Your task to perform on an android device: Open the Play Movies app and select the watchlist tab. Image 0: 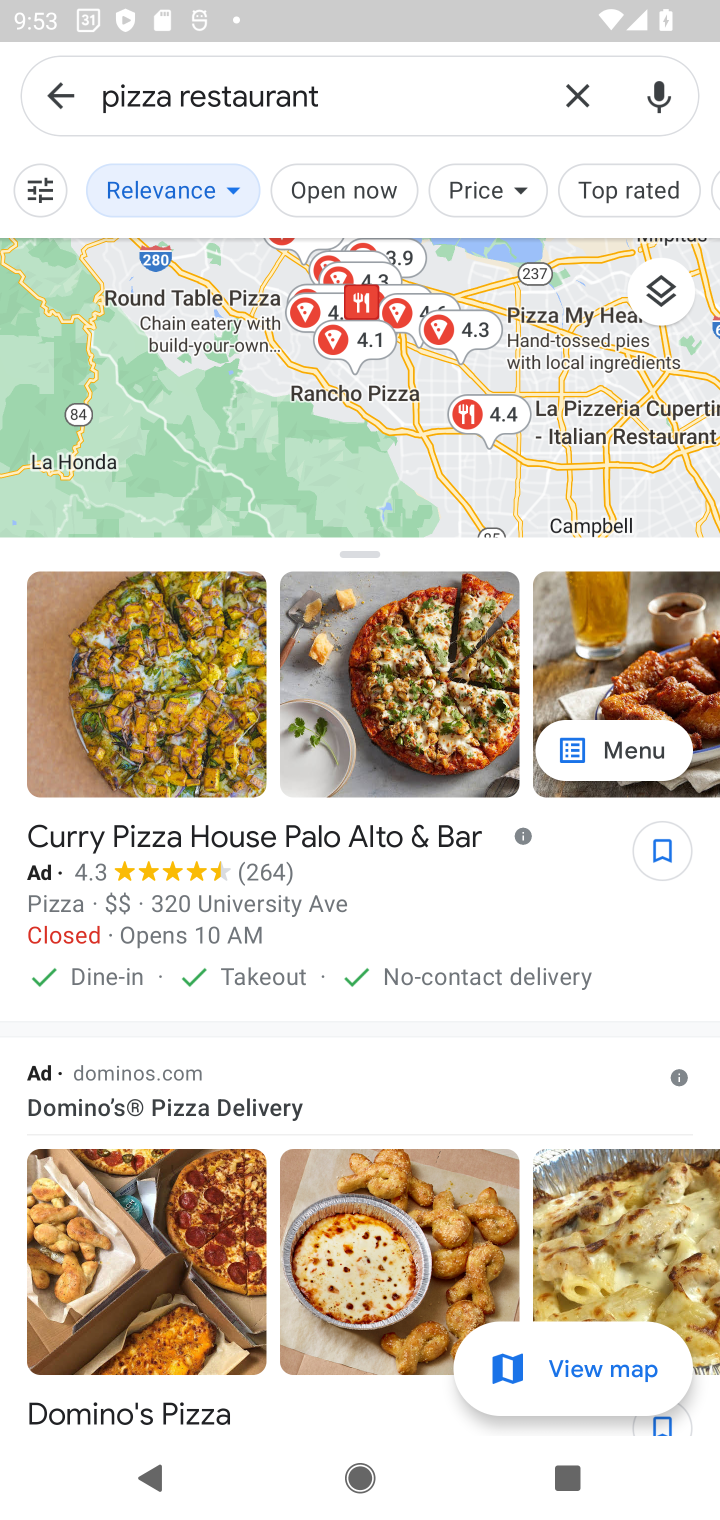
Step 0: press home button
Your task to perform on an android device: Open the Play Movies app and select the watchlist tab. Image 1: 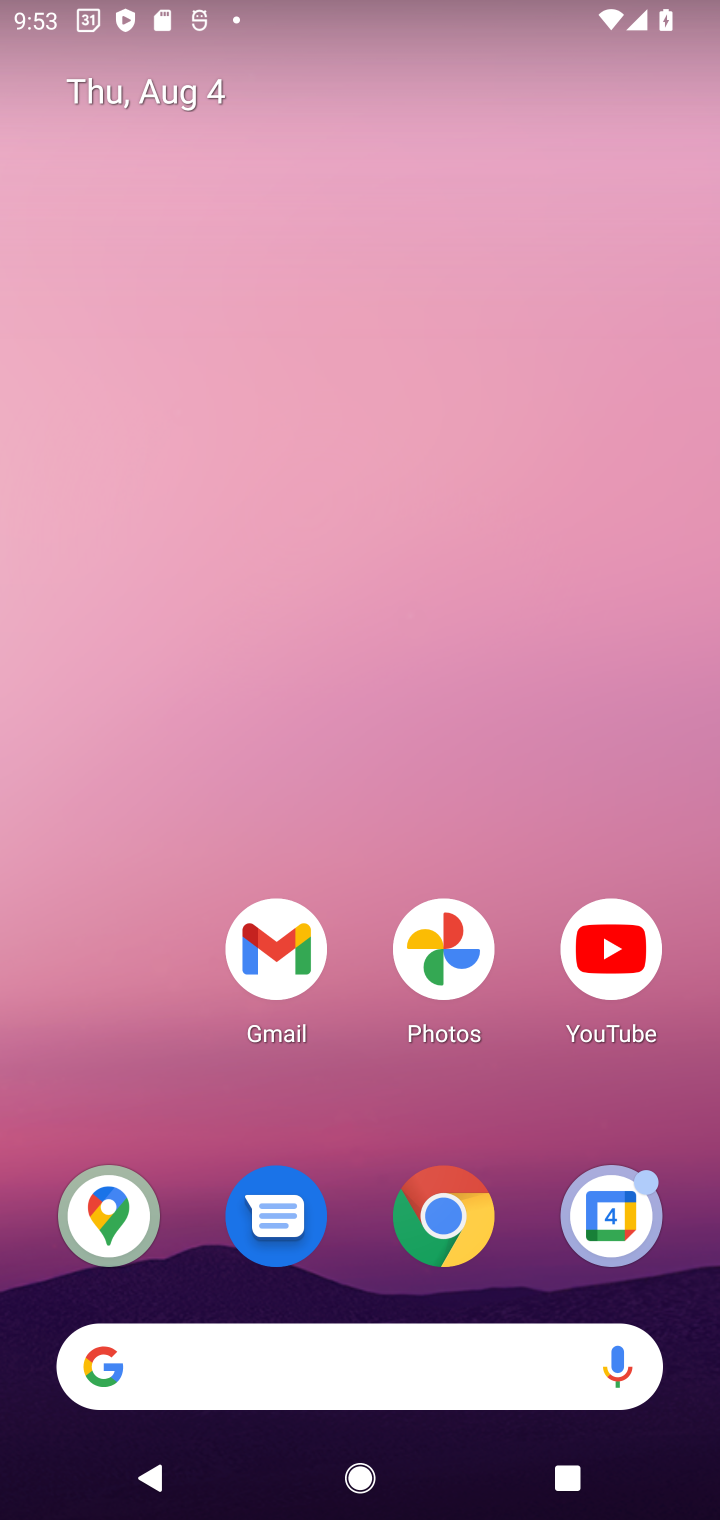
Step 1: drag from (270, 1362) to (366, 155)
Your task to perform on an android device: Open the Play Movies app and select the watchlist tab. Image 2: 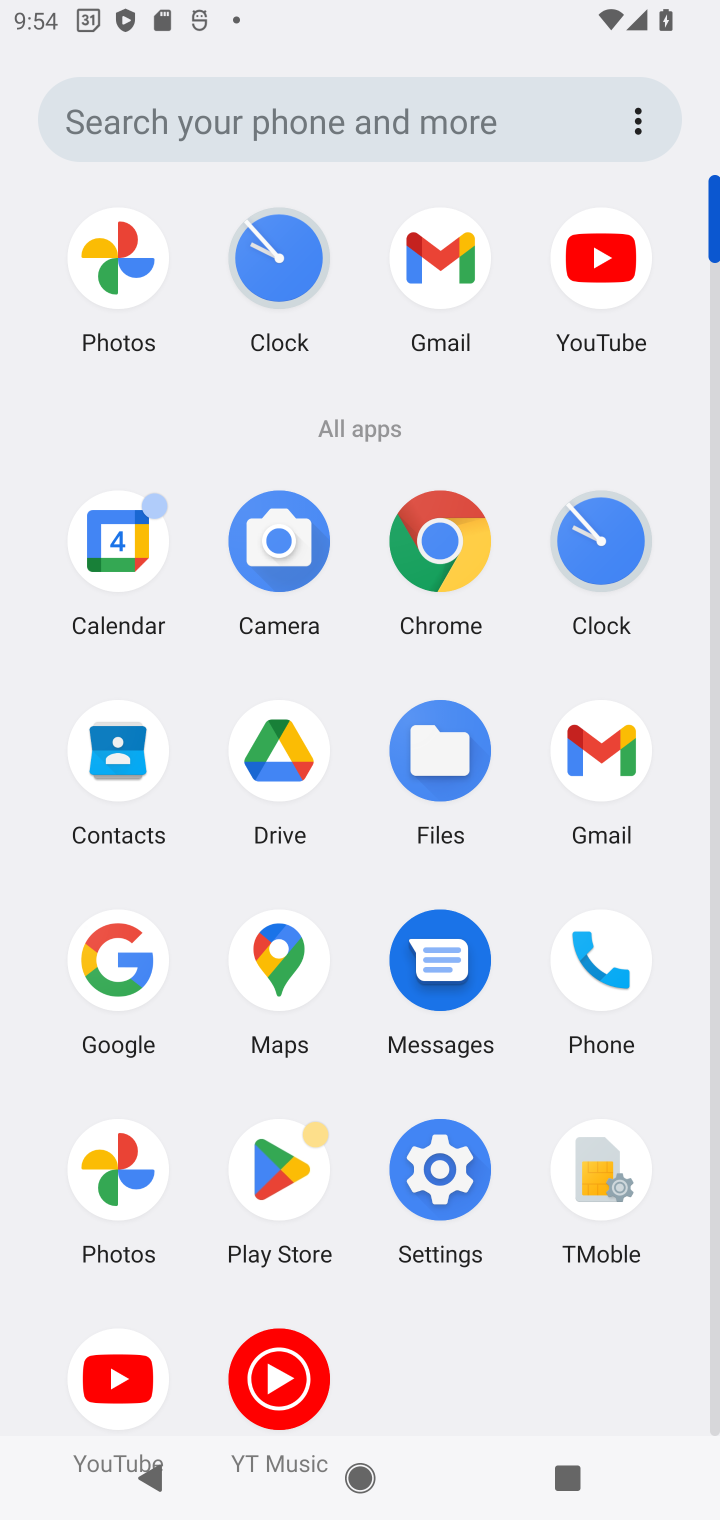
Step 2: click (274, 1380)
Your task to perform on an android device: Open the Play Movies app and select the watchlist tab. Image 3: 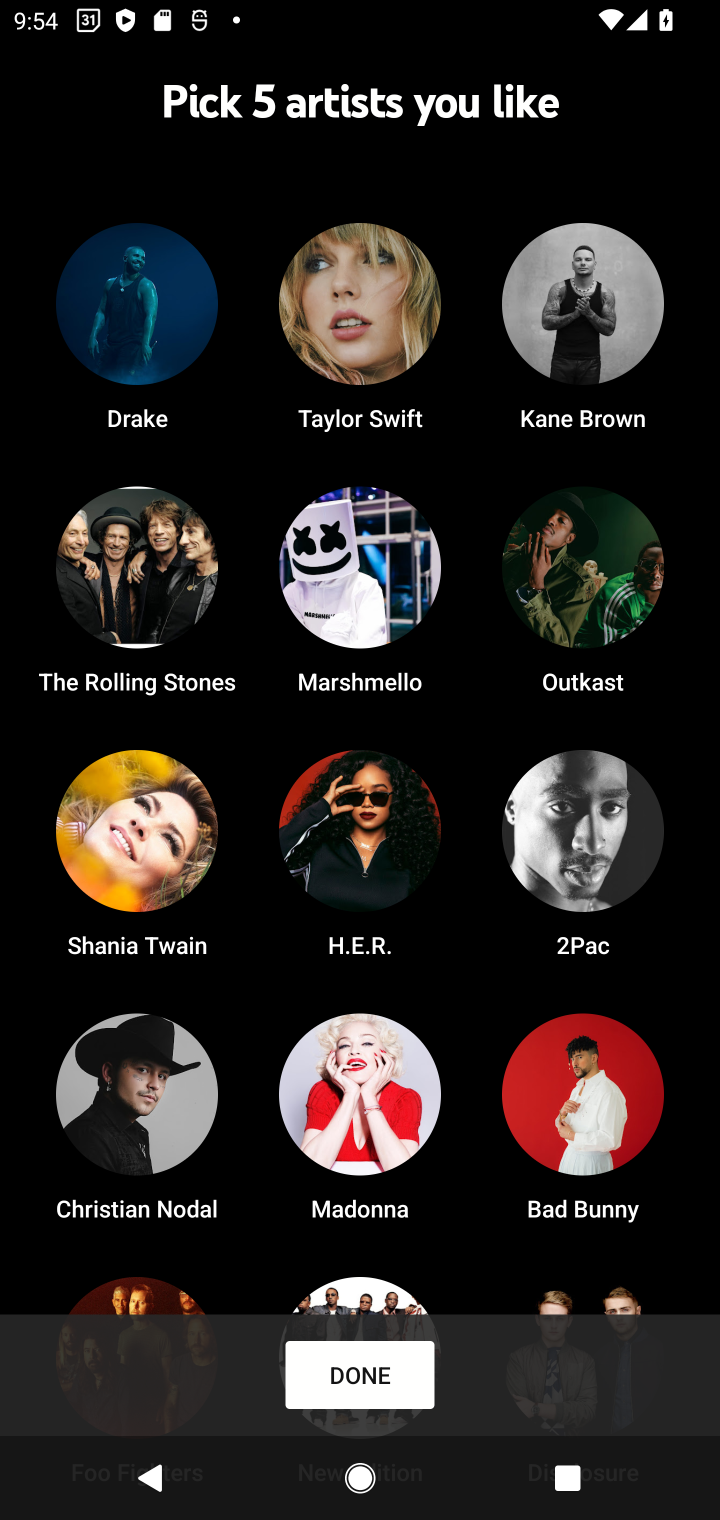
Step 3: click (351, 1376)
Your task to perform on an android device: Open the Play Movies app and select the watchlist tab. Image 4: 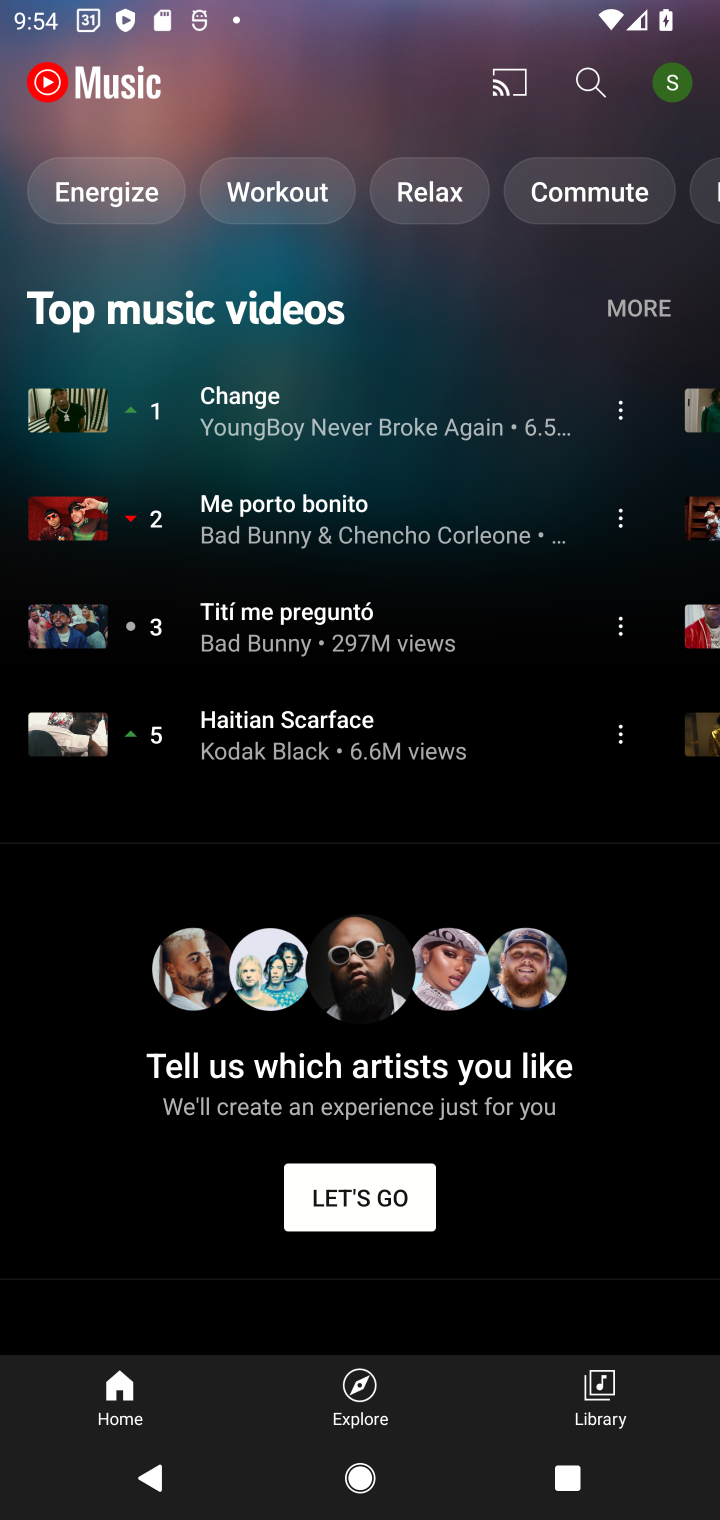
Step 4: press back button
Your task to perform on an android device: Open the Play Movies app and select the watchlist tab. Image 5: 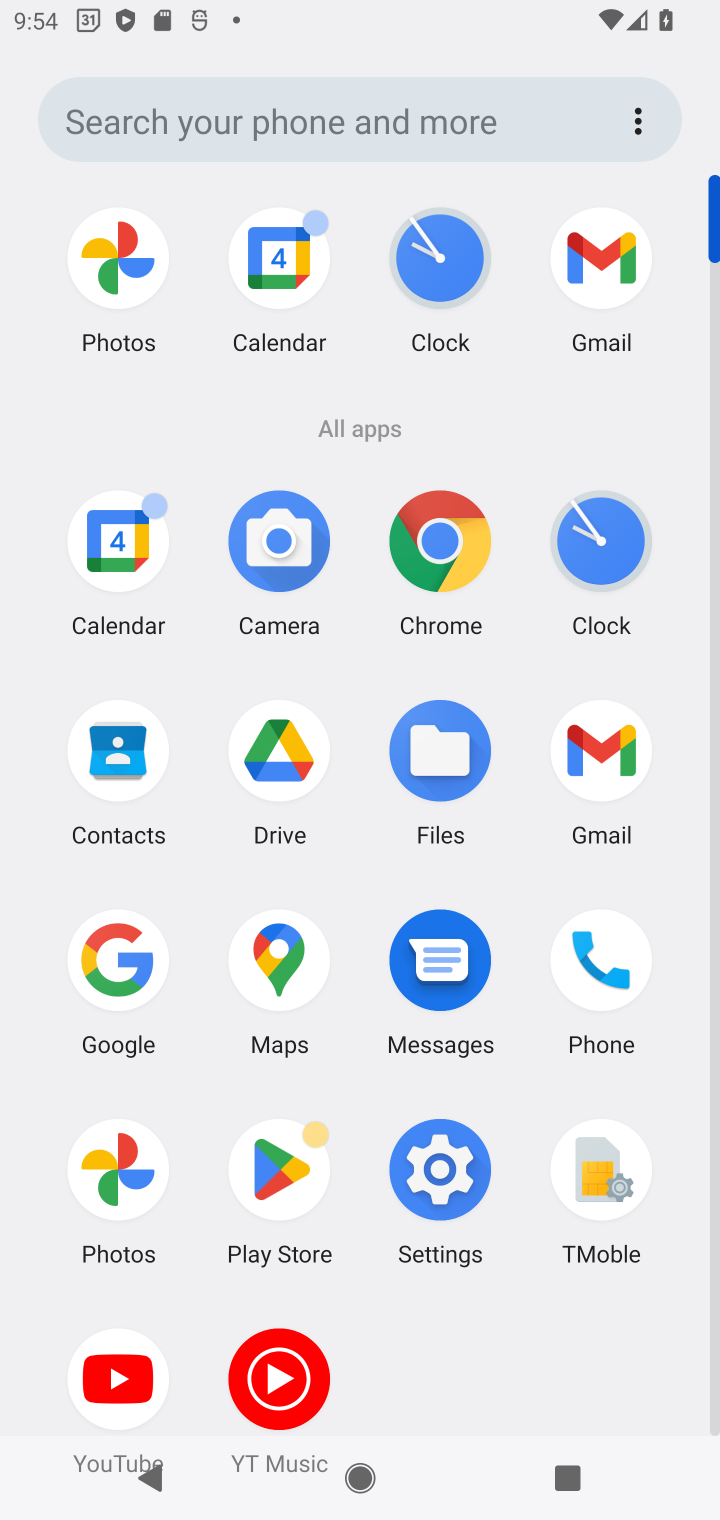
Step 5: click (413, 127)
Your task to perform on an android device: Open the Play Movies app and select the watchlist tab. Image 6: 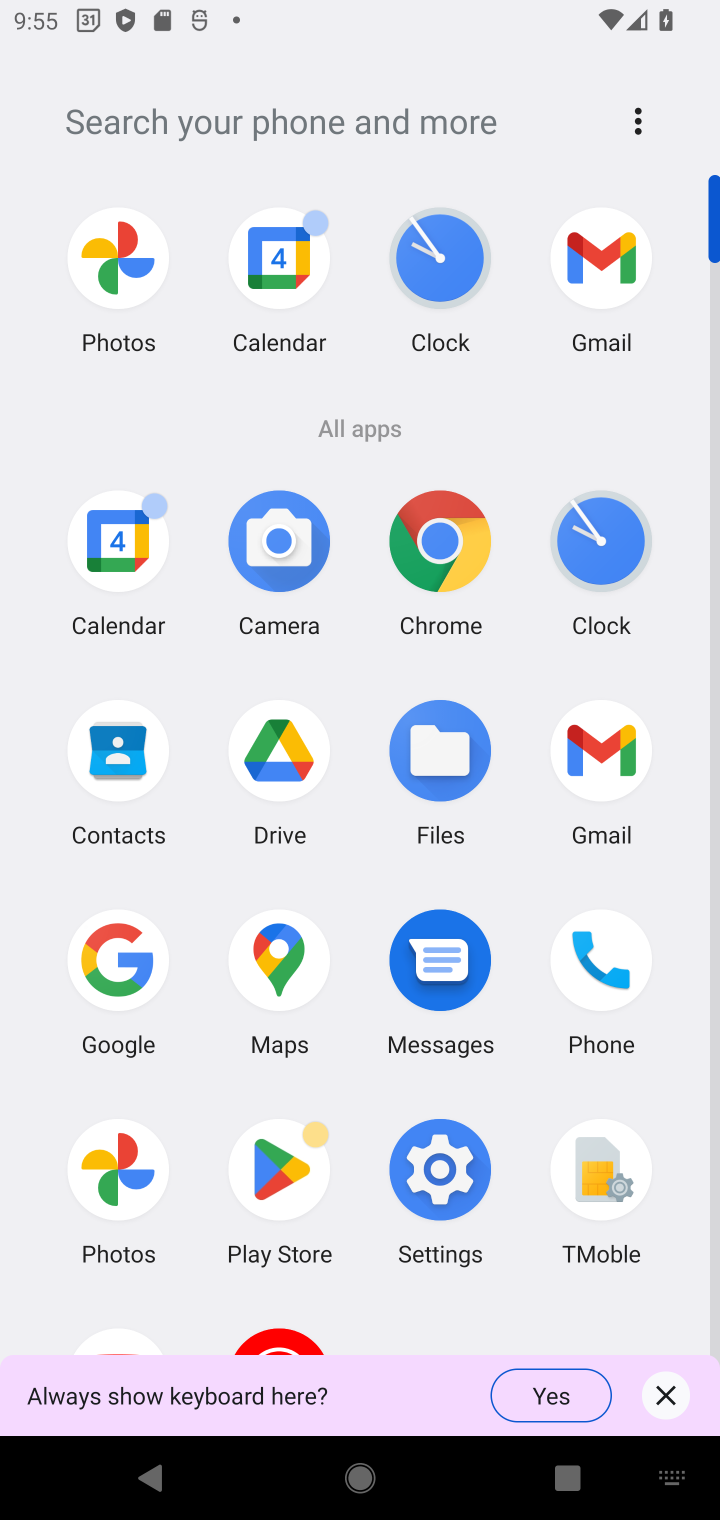
Step 6: type "play Movies"
Your task to perform on an android device: Open the Play Movies app and select the watchlist tab. Image 7: 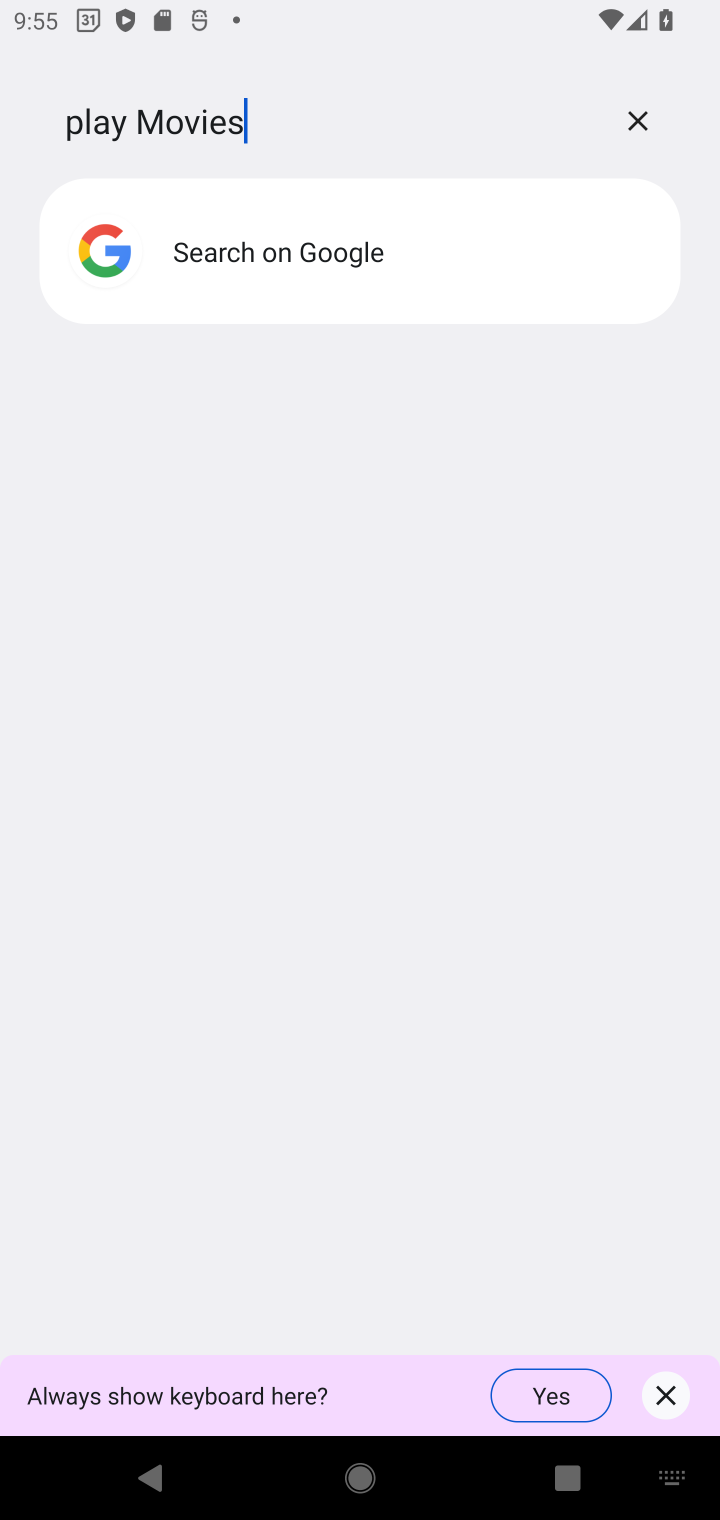
Step 7: click (266, 256)
Your task to perform on an android device: Open the Play Movies app and select the watchlist tab. Image 8: 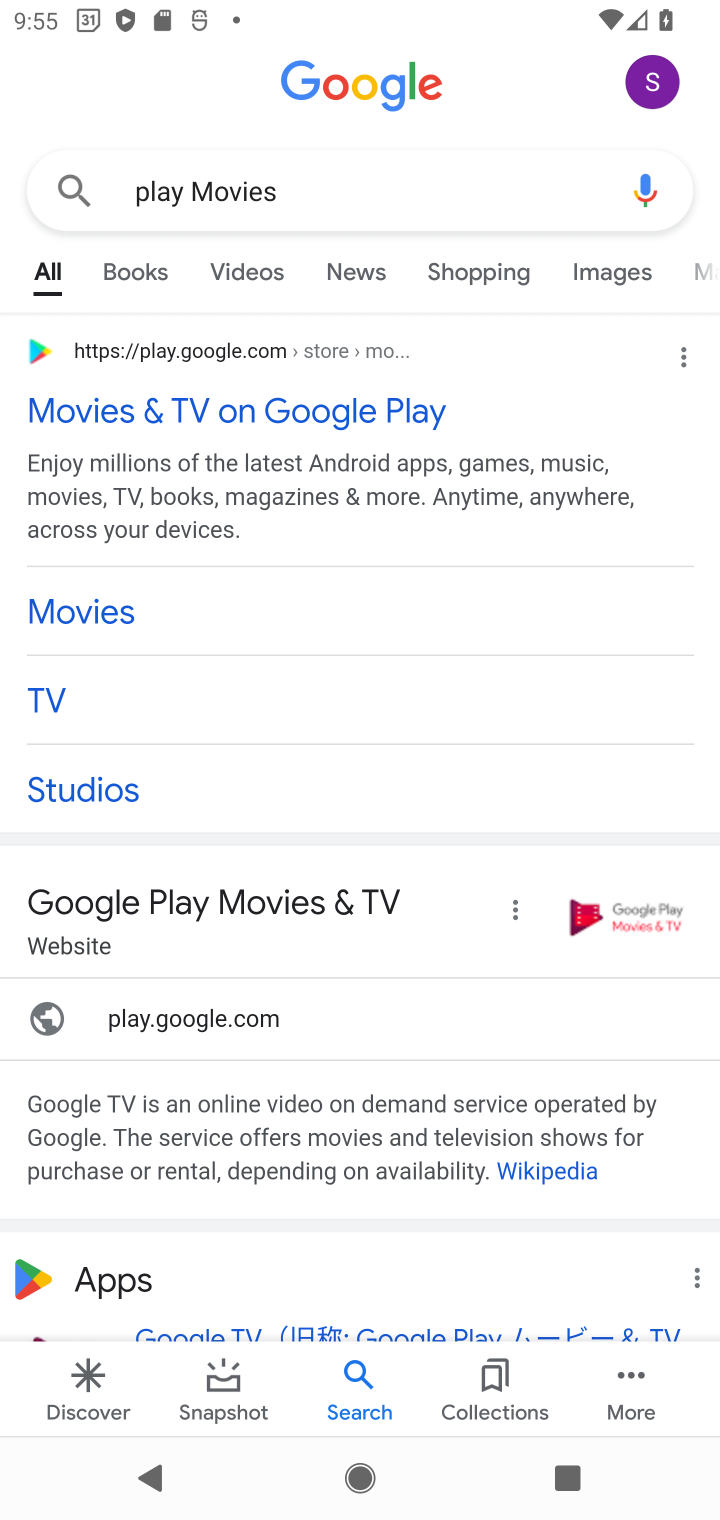
Step 8: drag from (335, 1179) to (460, 885)
Your task to perform on an android device: Open the Play Movies app and select the watchlist tab. Image 9: 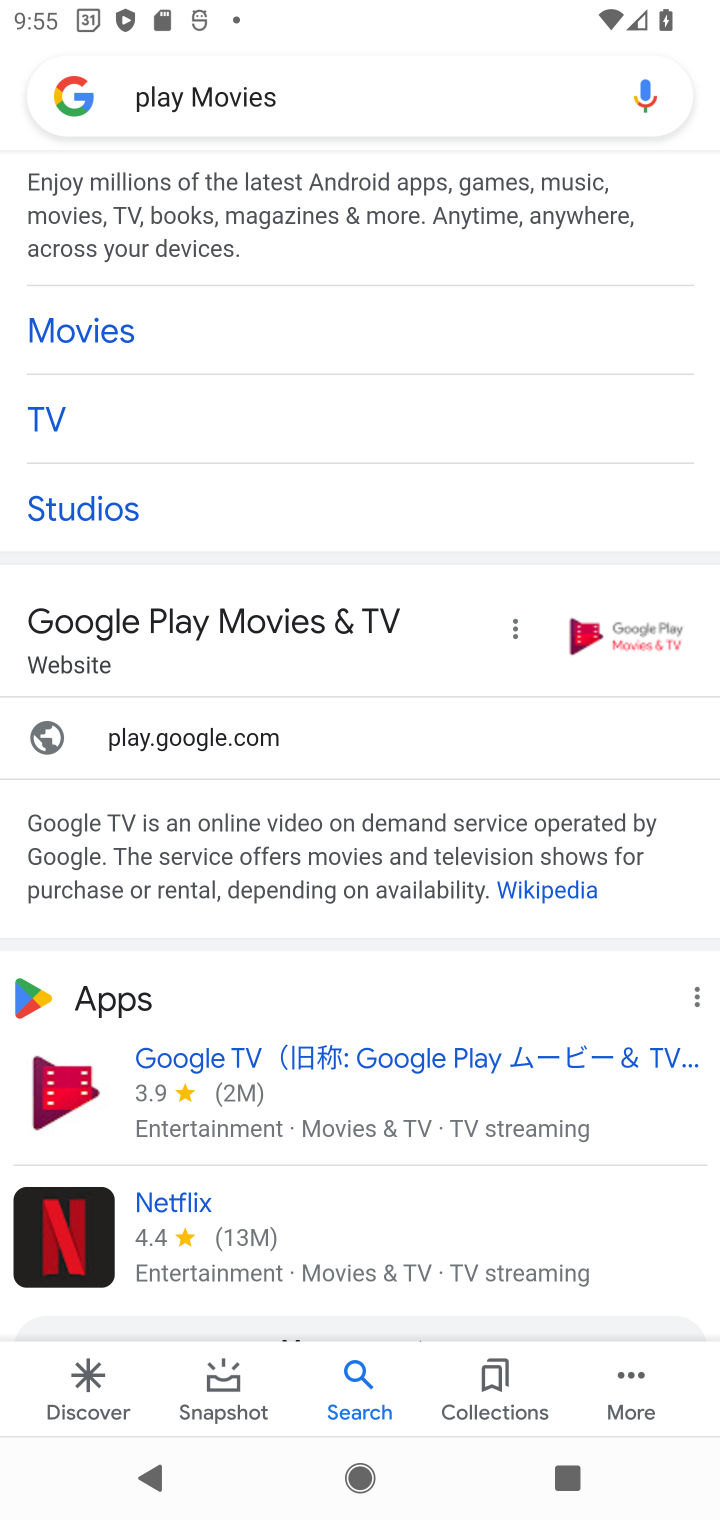
Step 9: click (251, 599)
Your task to perform on an android device: Open the Play Movies app and select the watchlist tab. Image 10: 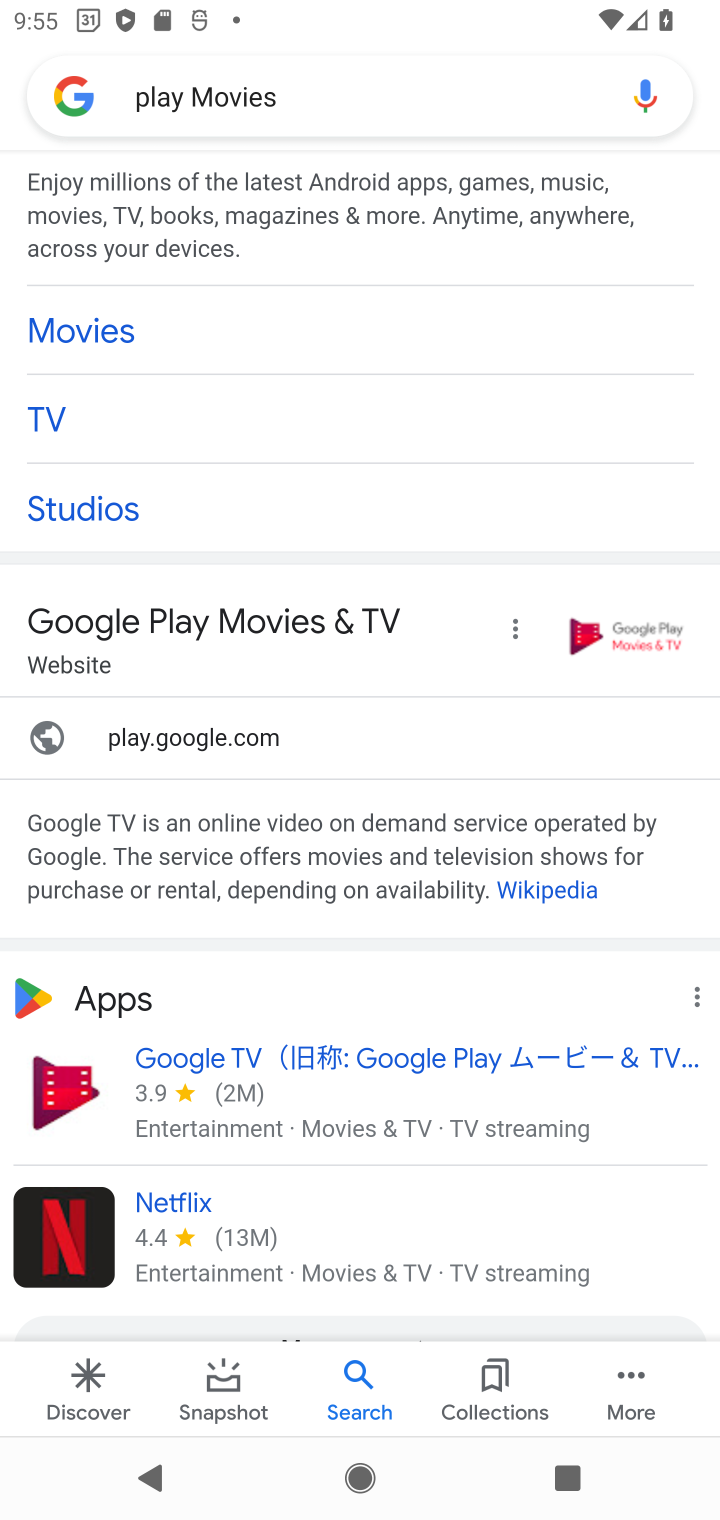
Step 10: click (341, 635)
Your task to perform on an android device: Open the Play Movies app and select the watchlist tab. Image 11: 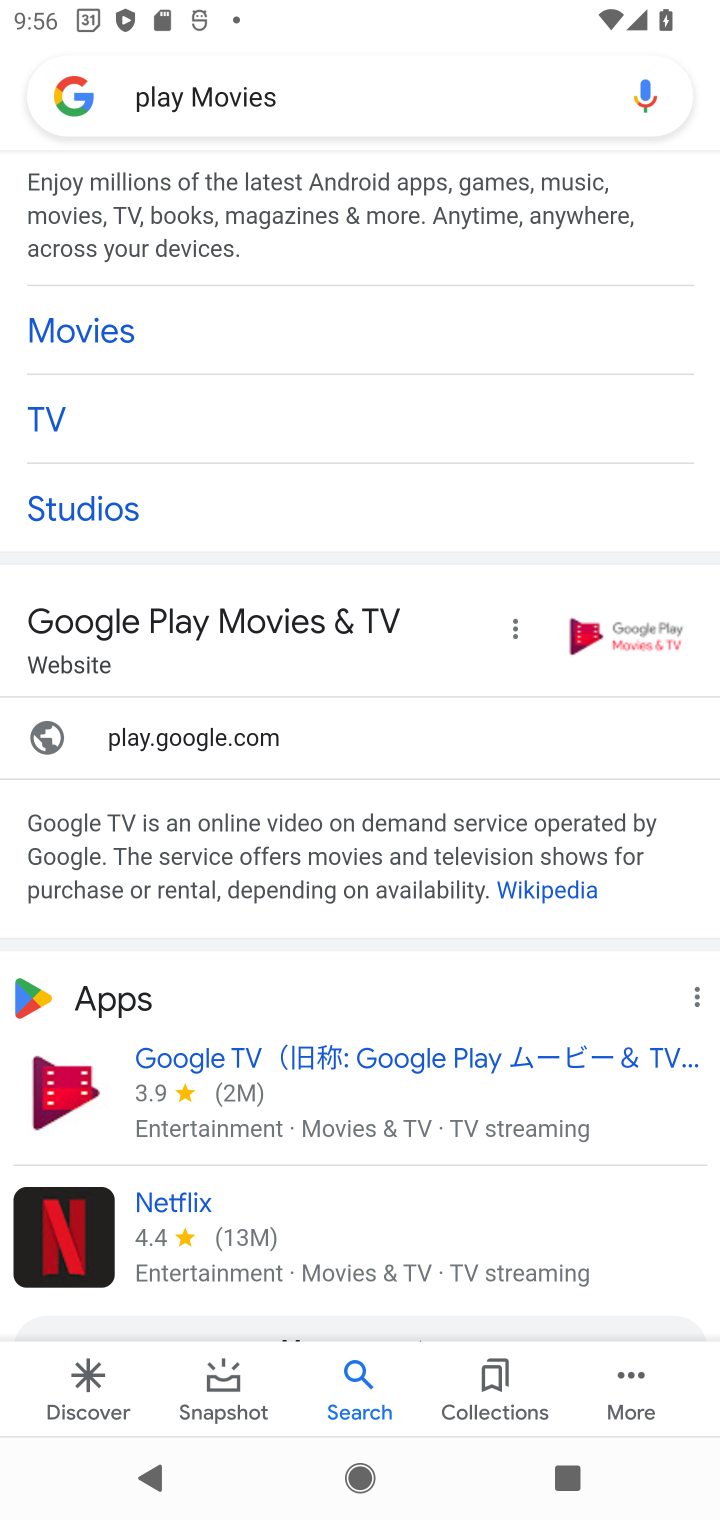
Step 11: task complete